Your task to perform on an android device: Search for hotels in Orlando Image 0: 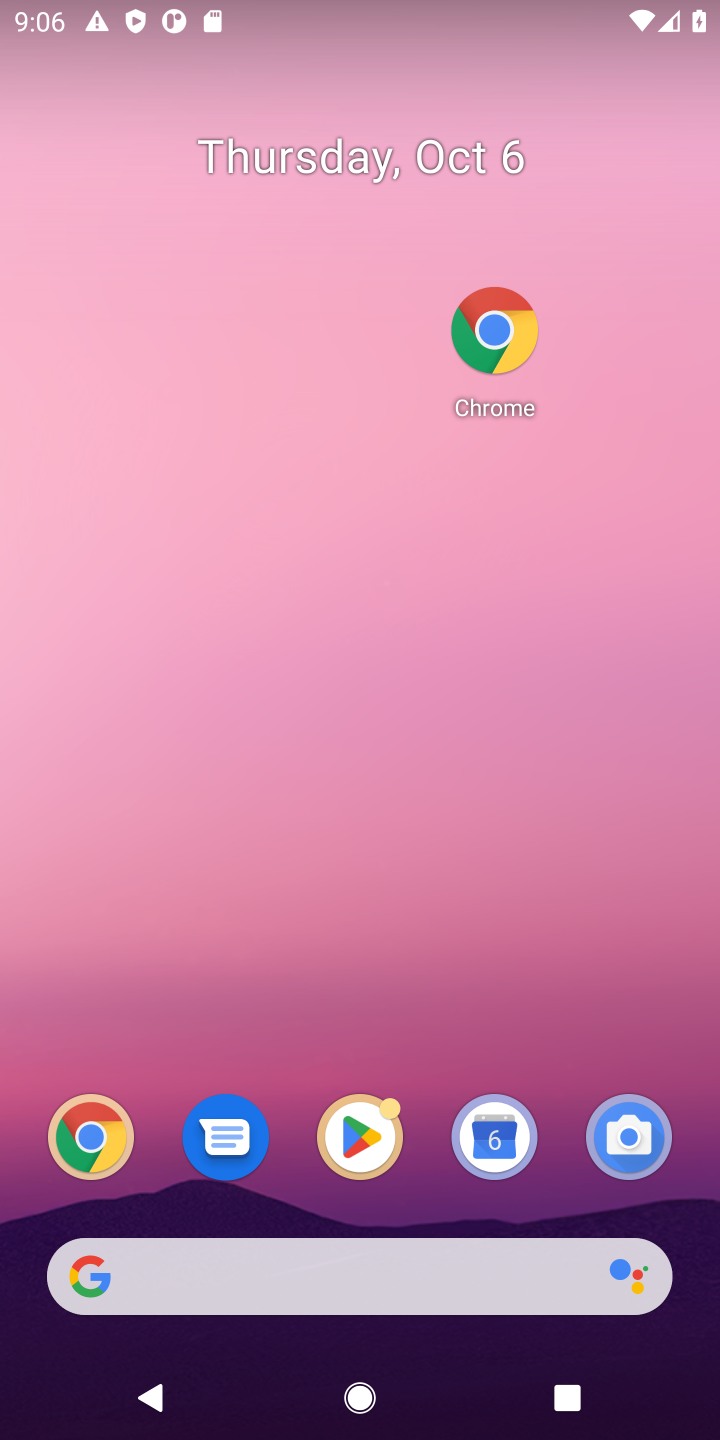
Step 0: click (94, 1145)
Your task to perform on an android device: Search for hotels in Orlando Image 1: 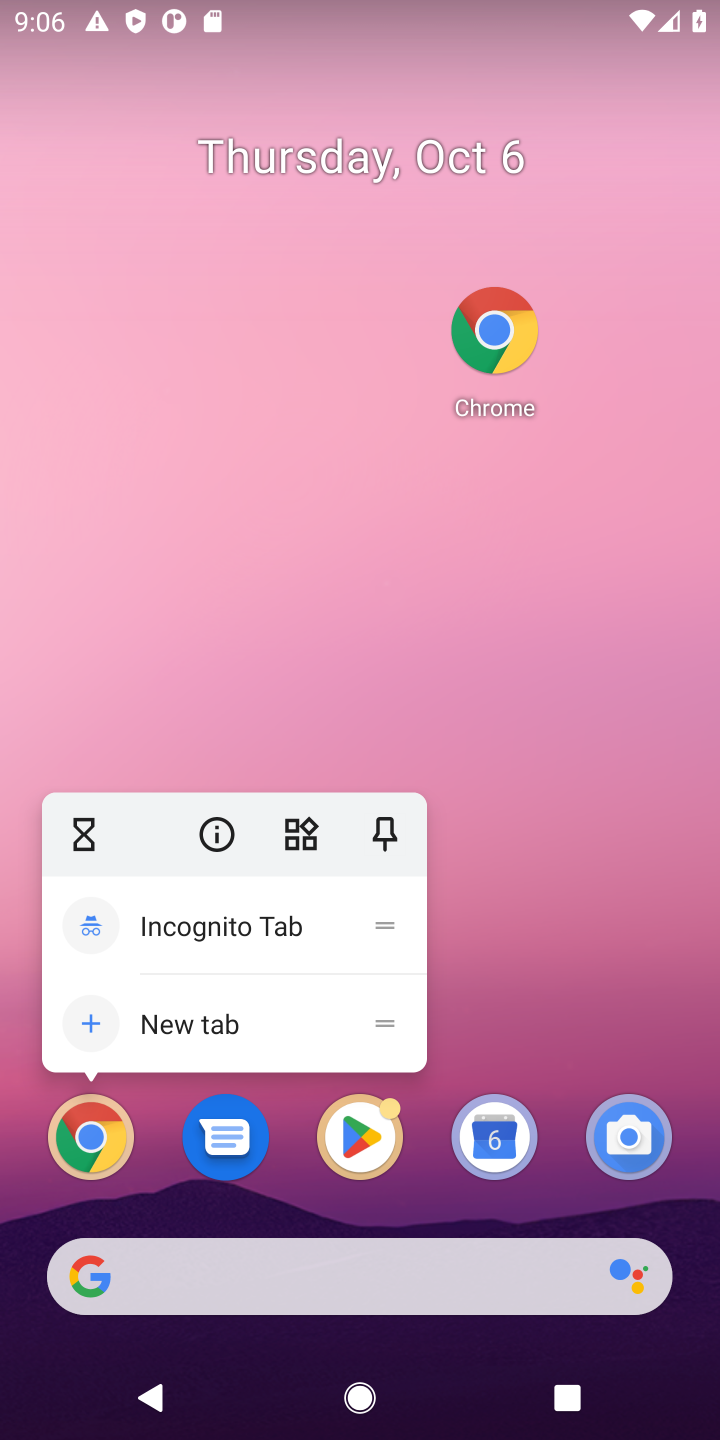
Step 1: click (94, 1145)
Your task to perform on an android device: Search for hotels in Orlando Image 2: 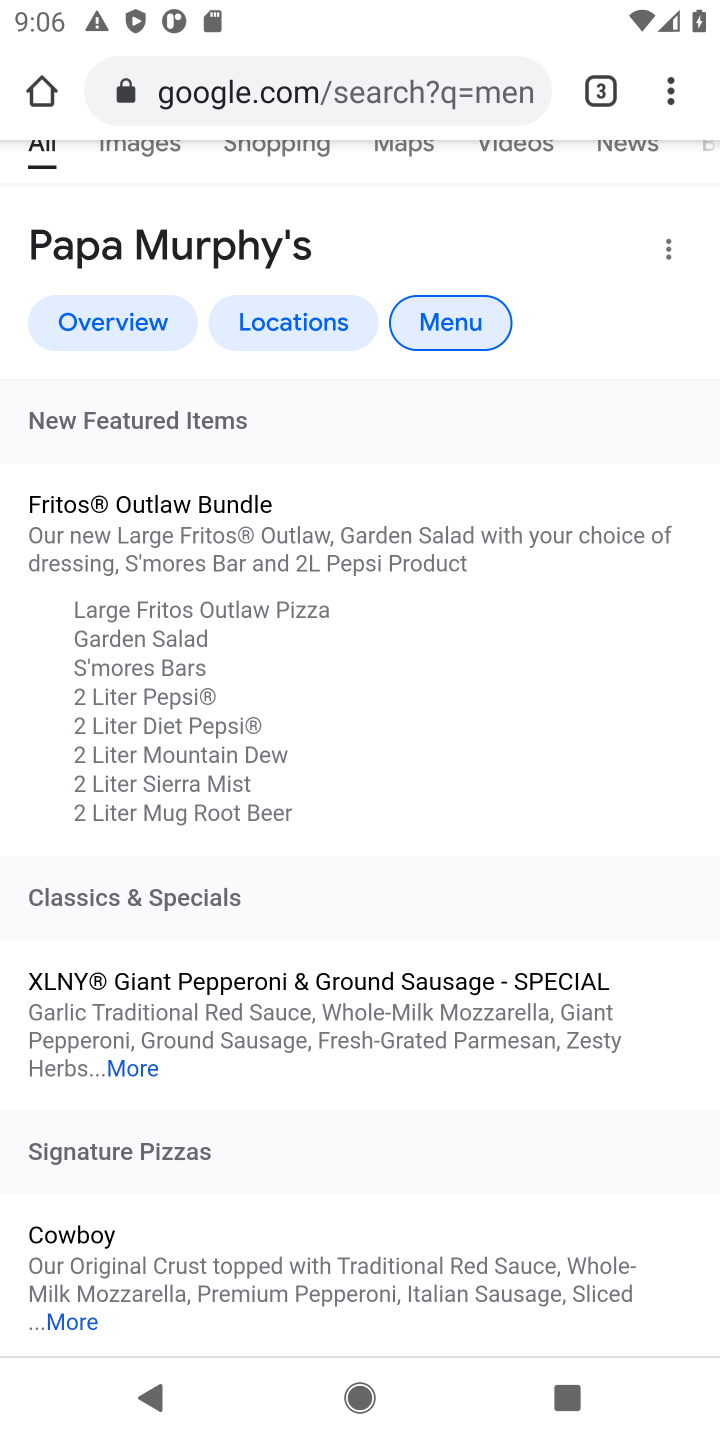
Step 2: click (465, 97)
Your task to perform on an android device: Search for hotels in Orlando Image 3: 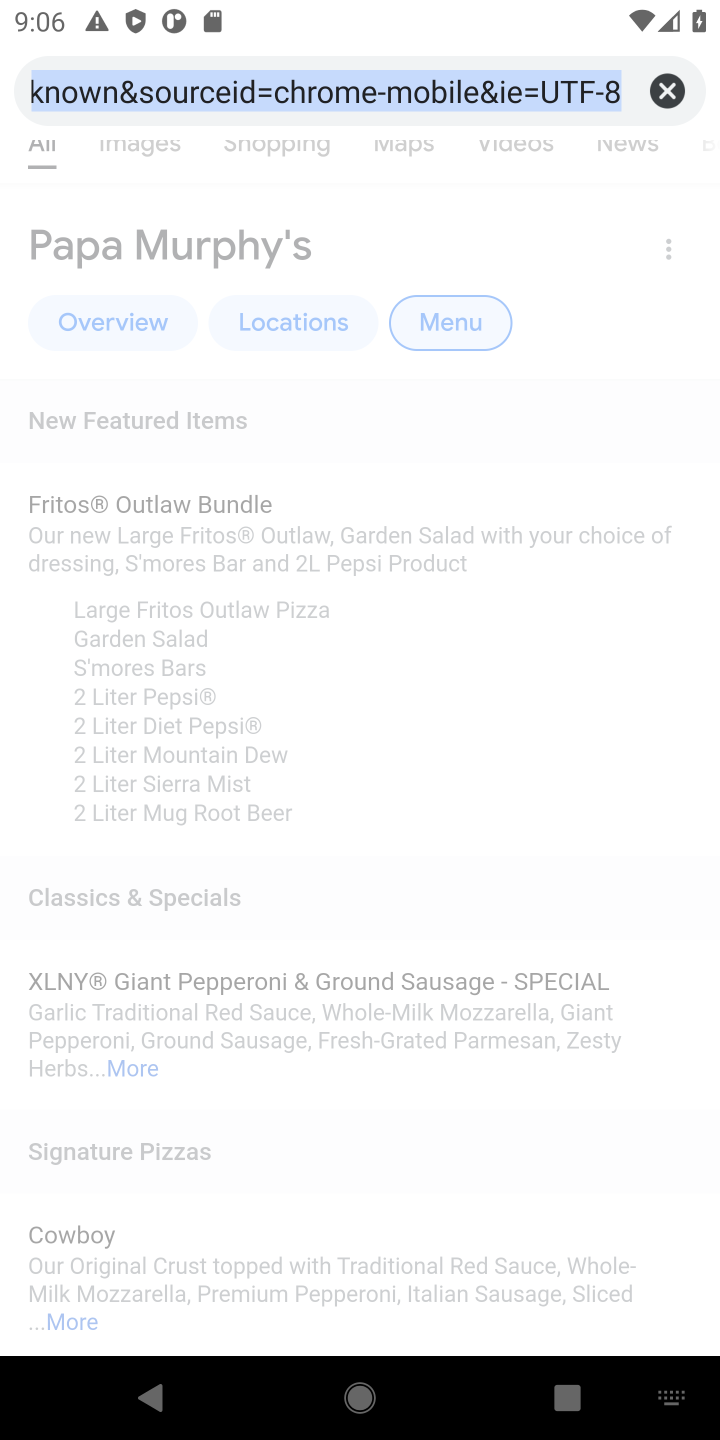
Step 3: click (651, 90)
Your task to perform on an android device: Search for hotels in Orlando Image 4: 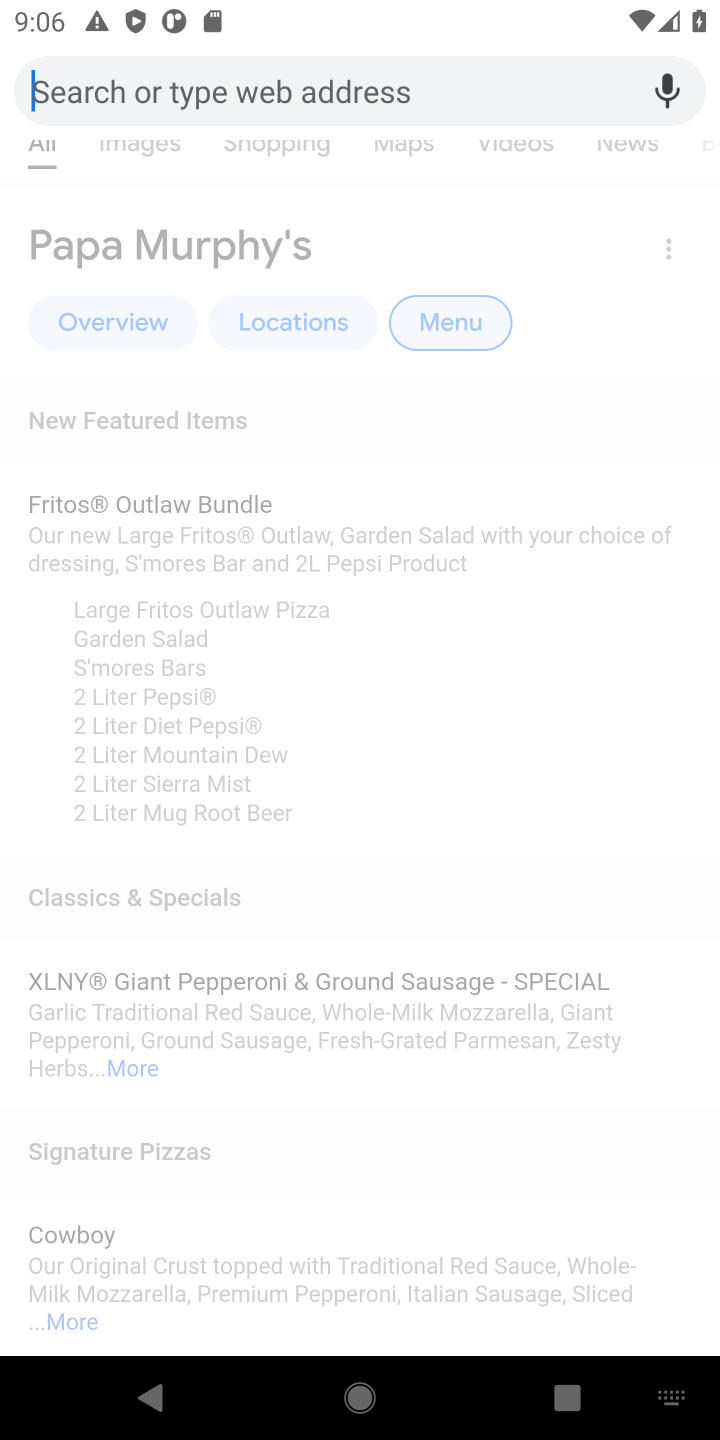
Step 4: type "hotels in Orlando"
Your task to perform on an android device: Search for hotels in Orlando Image 5: 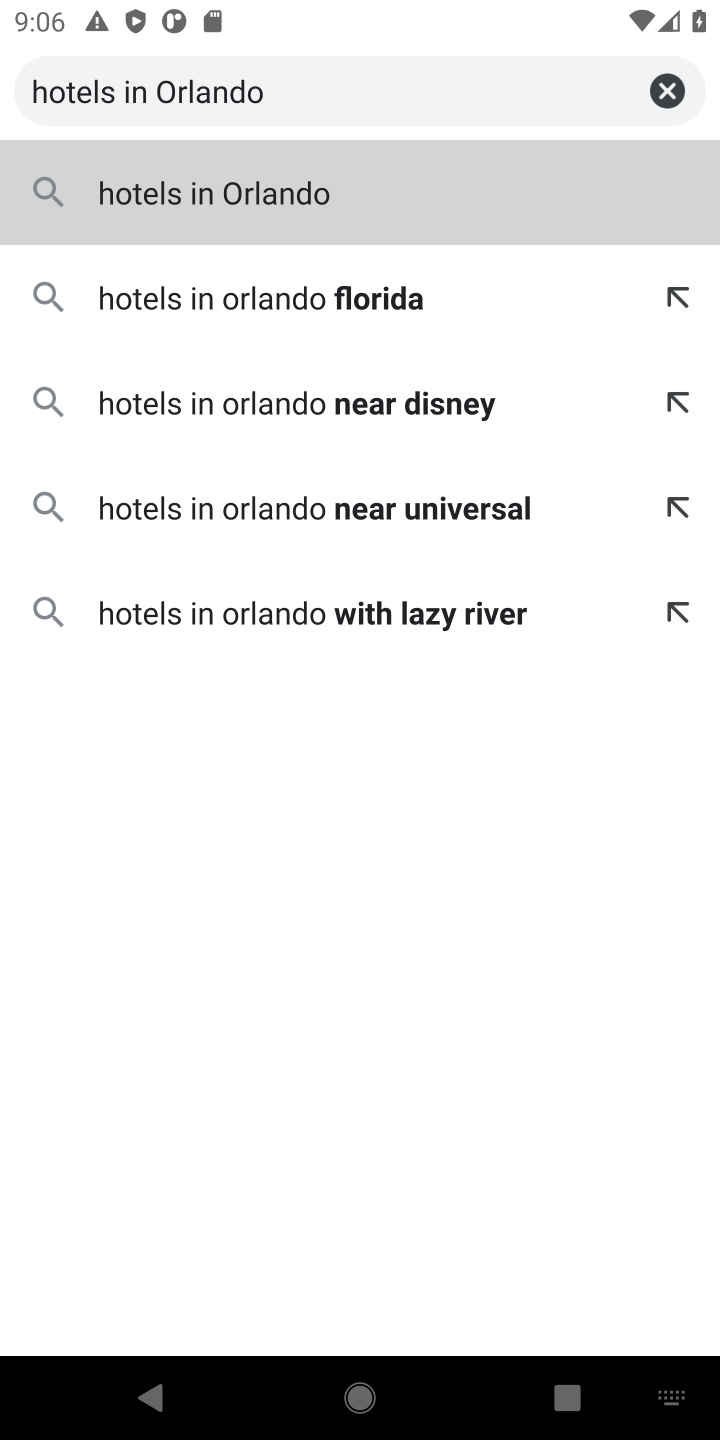
Step 5: click (188, 200)
Your task to perform on an android device: Search for hotels in Orlando Image 6: 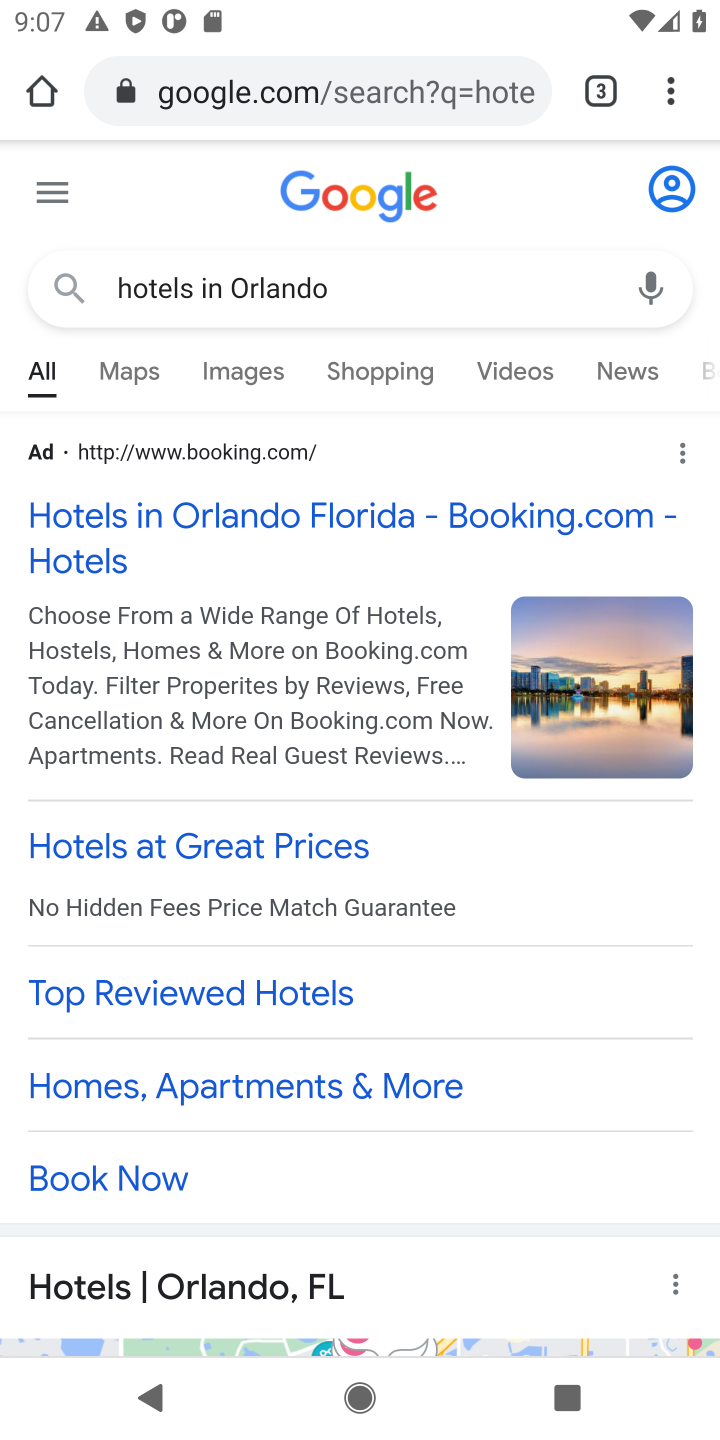
Step 6: click (167, 524)
Your task to perform on an android device: Search for hotels in Orlando Image 7: 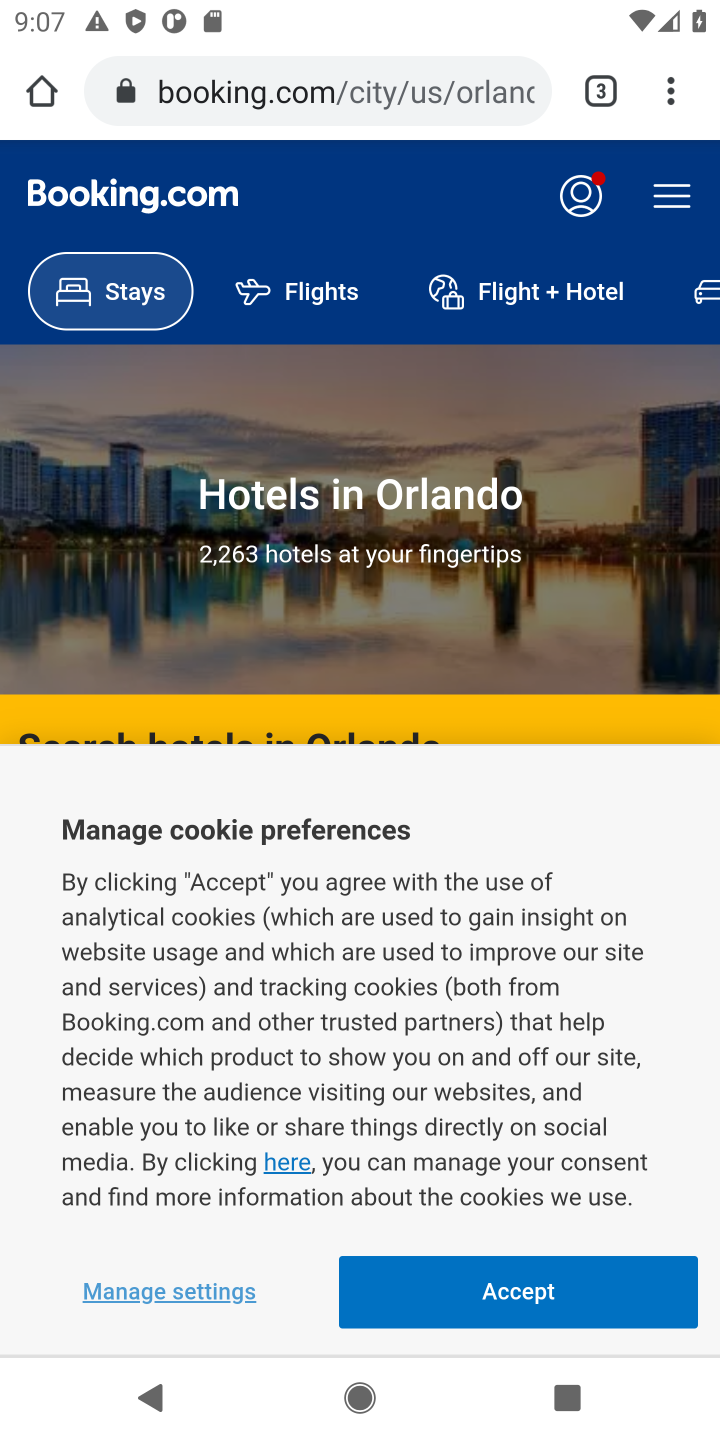
Step 7: task complete